Your task to perform on an android device: Toggle the flashlight Image 0: 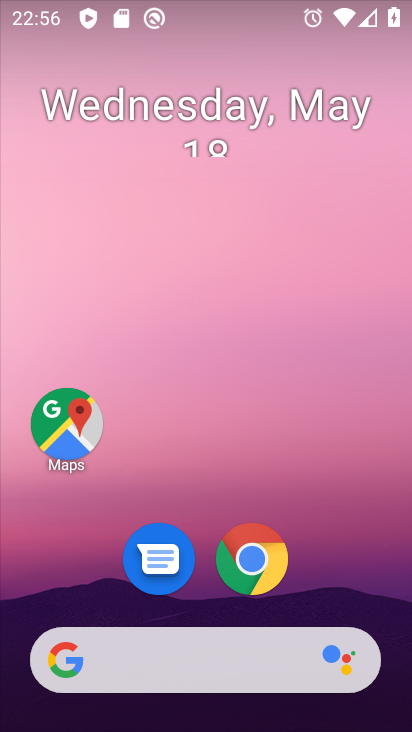
Step 0: drag from (342, 572) to (382, 258)
Your task to perform on an android device: Toggle the flashlight Image 1: 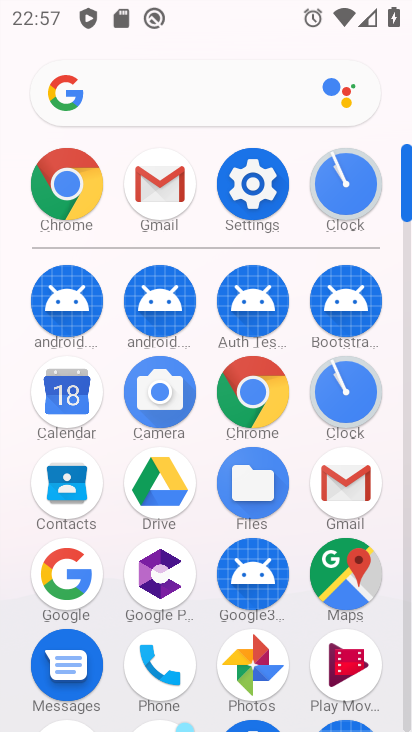
Step 1: task complete